Your task to perform on an android device: Go to location settings Image 0: 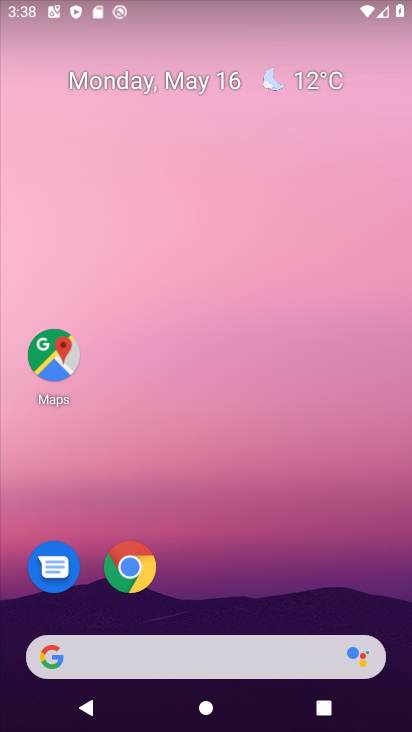
Step 0: drag from (275, 536) to (234, 24)
Your task to perform on an android device: Go to location settings Image 1: 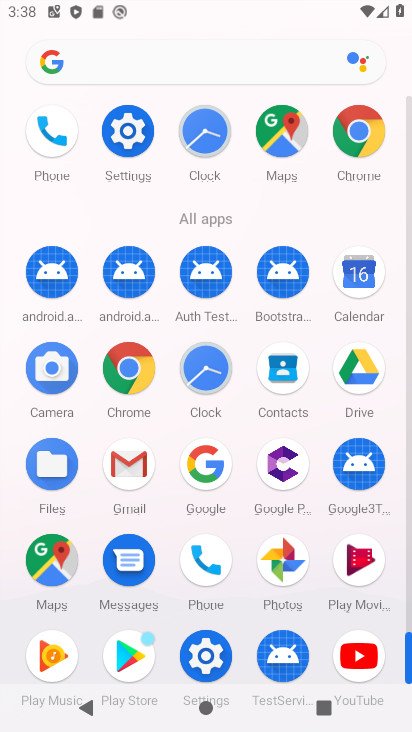
Step 1: drag from (4, 531) to (0, 278)
Your task to perform on an android device: Go to location settings Image 2: 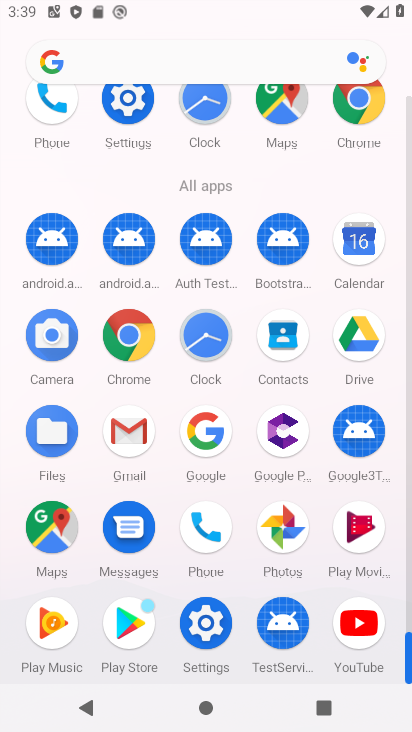
Step 2: click (207, 622)
Your task to perform on an android device: Go to location settings Image 3: 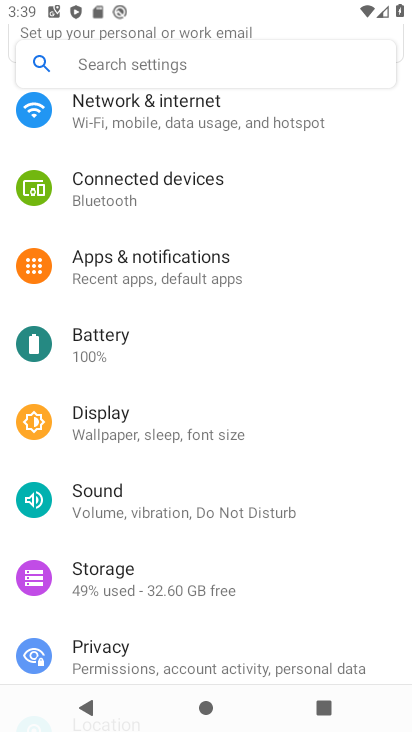
Step 3: drag from (305, 183) to (286, 568)
Your task to perform on an android device: Go to location settings Image 4: 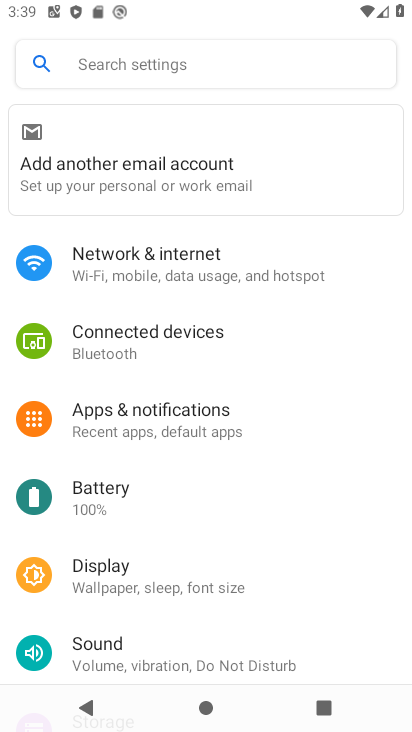
Step 4: drag from (229, 621) to (263, 251)
Your task to perform on an android device: Go to location settings Image 5: 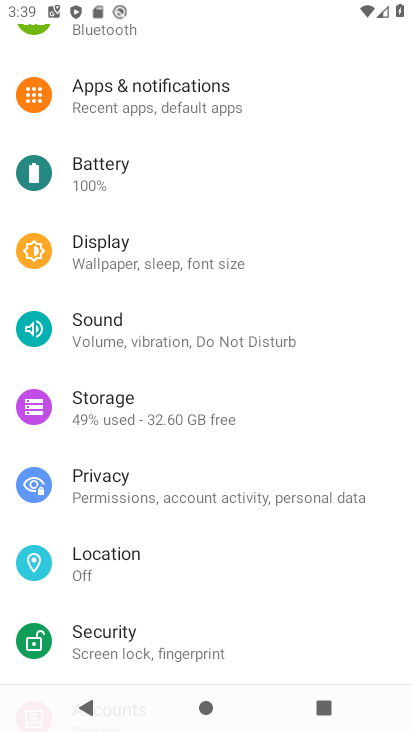
Step 5: click (130, 565)
Your task to perform on an android device: Go to location settings Image 6: 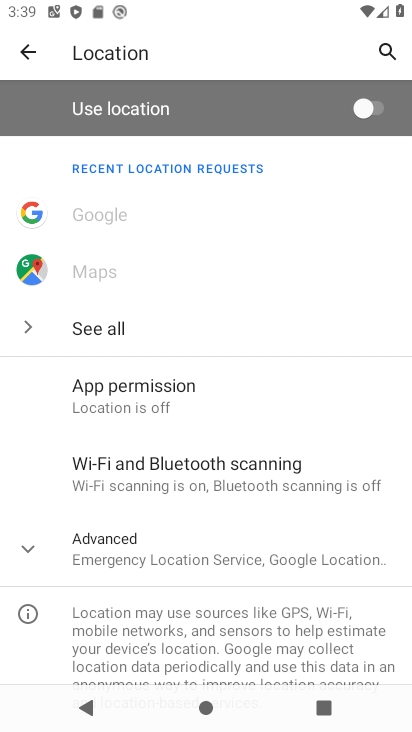
Step 6: click (32, 544)
Your task to perform on an android device: Go to location settings Image 7: 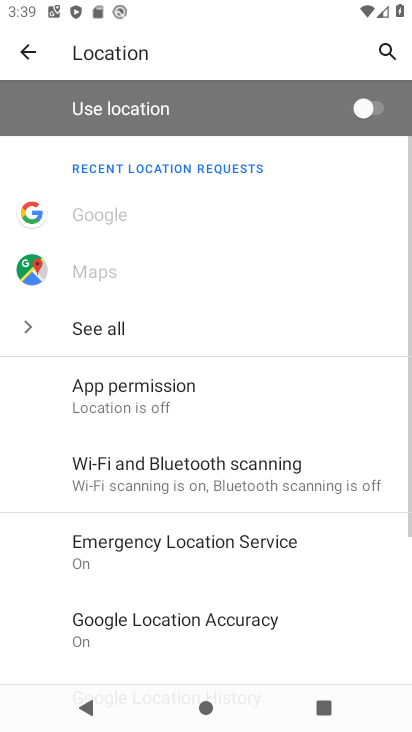
Step 7: task complete